Your task to perform on an android device: search for starred emails in the gmail app Image 0: 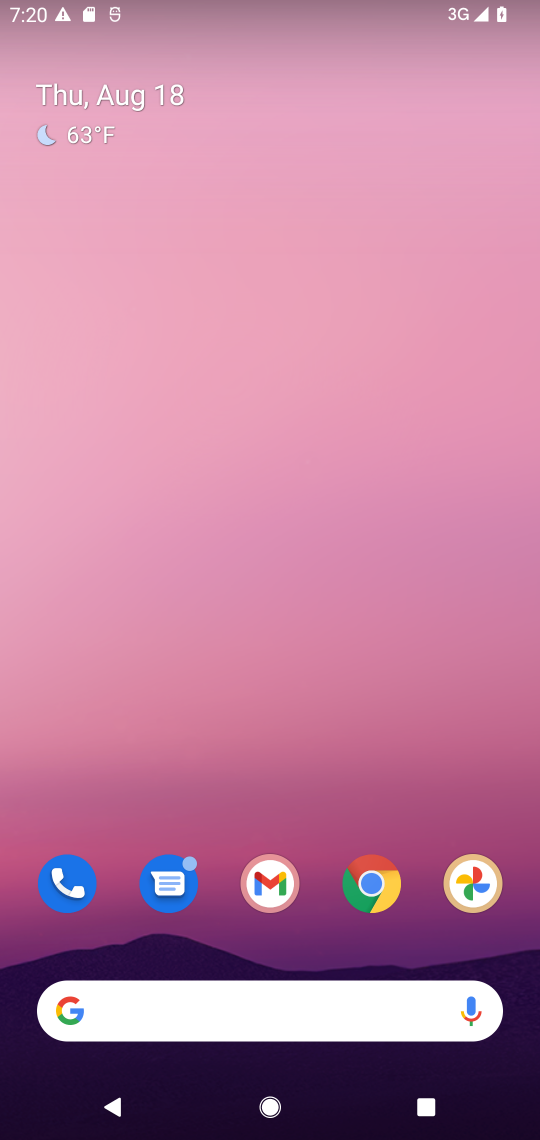
Step 0: drag from (26, 1120) to (107, 740)
Your task to perform on an android device: search for starred emails in the gmail app Image 1: 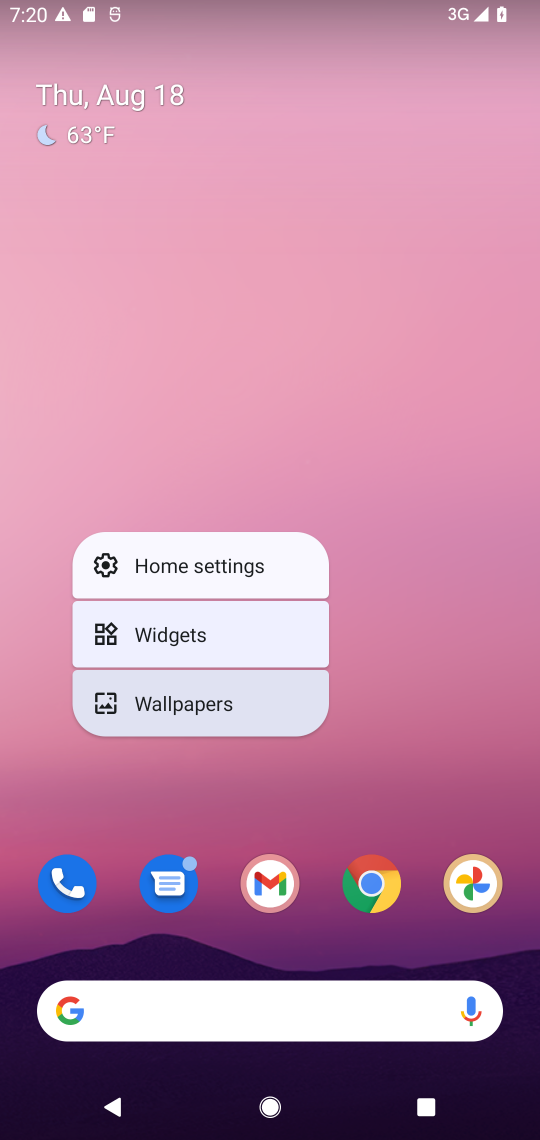
Step 1: click (266, 888)
Your task to perform on an android device: search for starred emails in the gmail app Image 2: 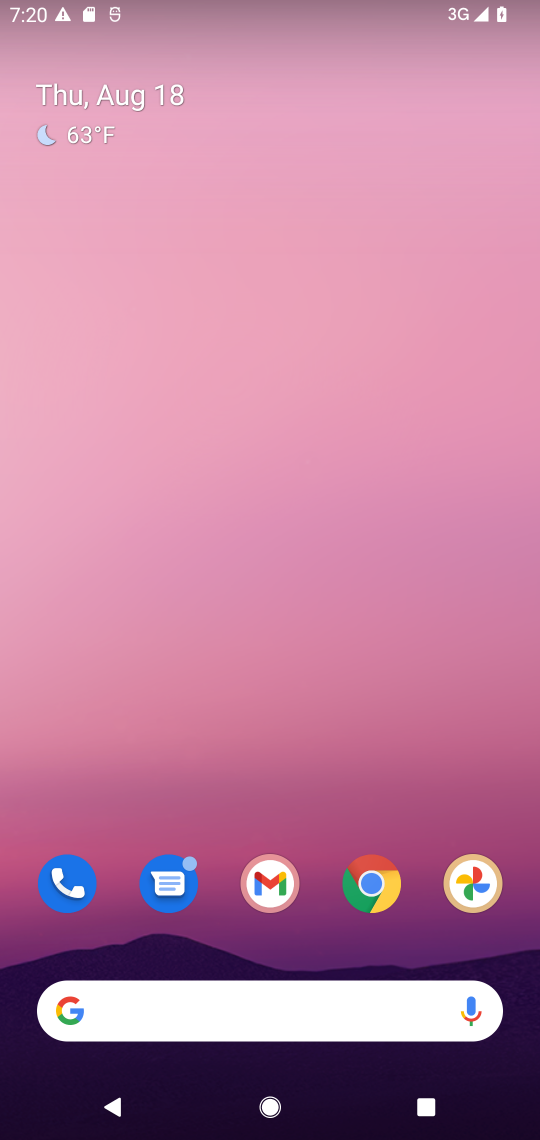
Step 2: click (266, 888)
Your task to perform on an android device: search for starred emails in the gmail app Image 3: 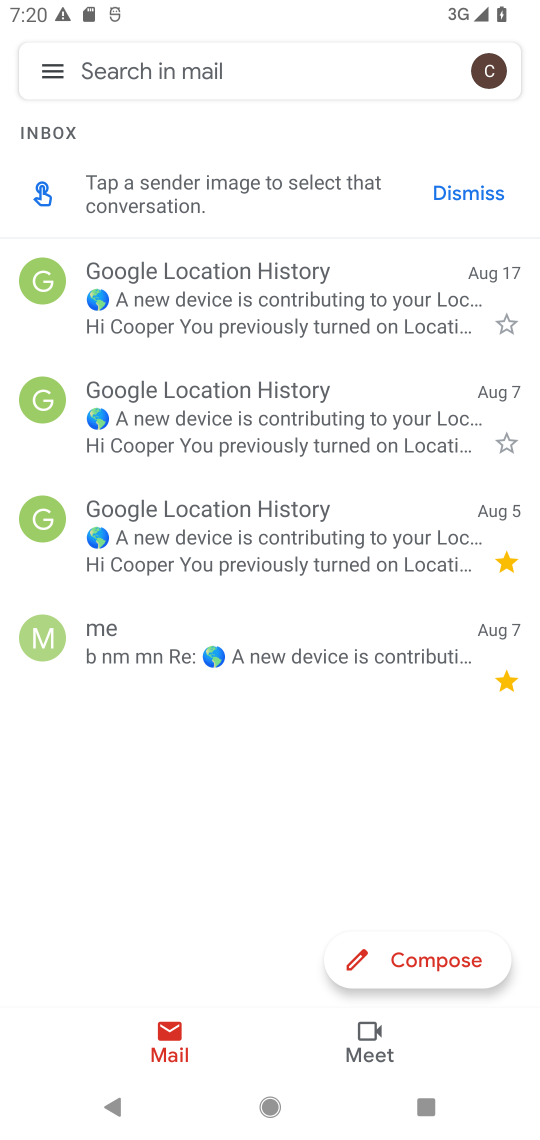
Step 3: click (45, 74)
Your task to perform on an android device: search for starred emails in the gmail app Image 4: 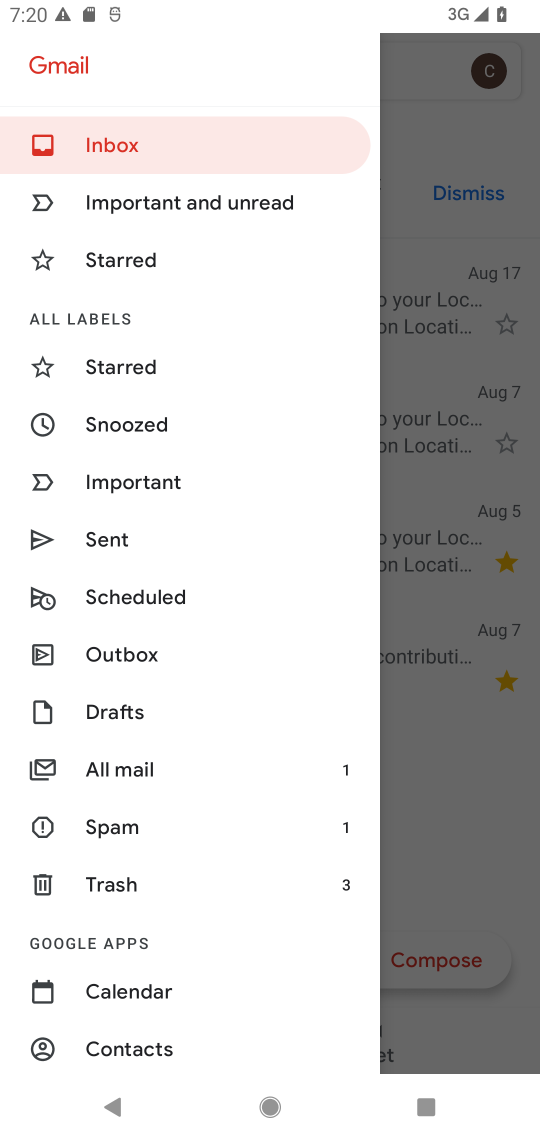
Step 4: click (128, 369)
Your task to perform on an android device: search for starred emails in the gmail app Image 5: 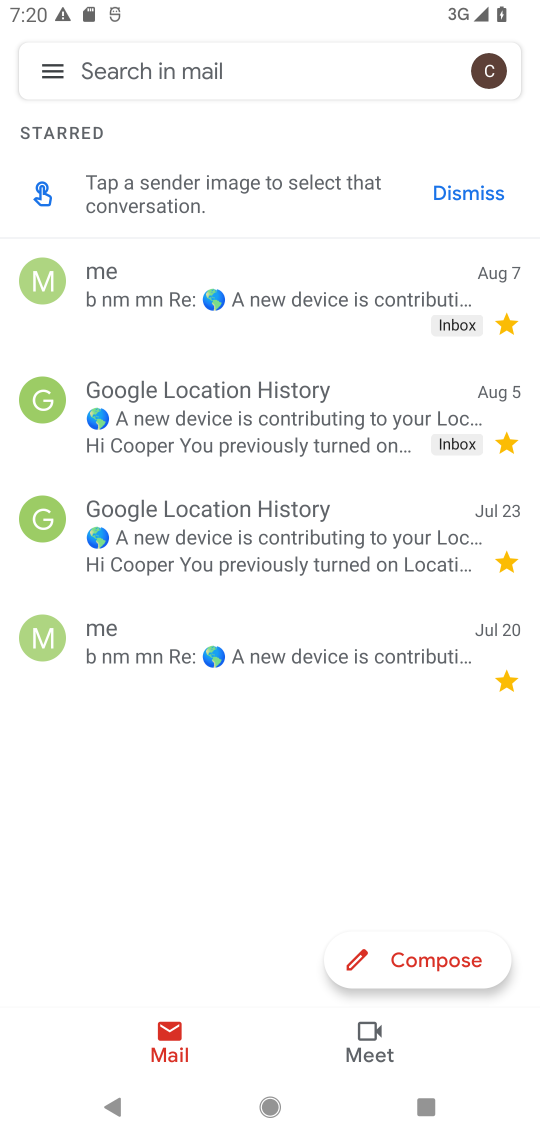
Step 5: task complete